Your task to perform on an android device: turn on data saver in the chrome app Image 0: 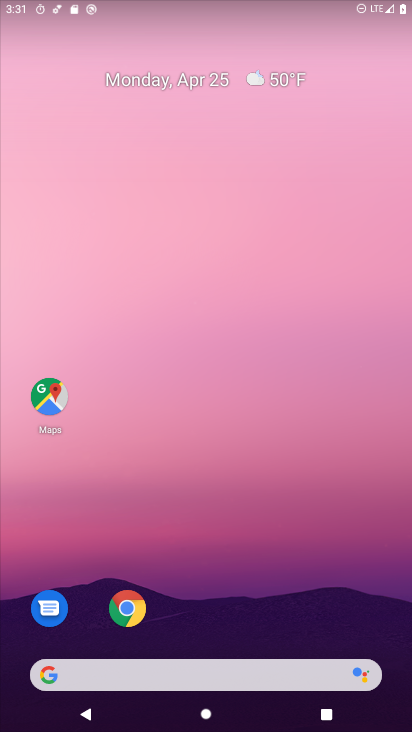
Step 0: click (118, 599)
Your task to perform on an android device: turn on data saver in the chrome app Image 1: 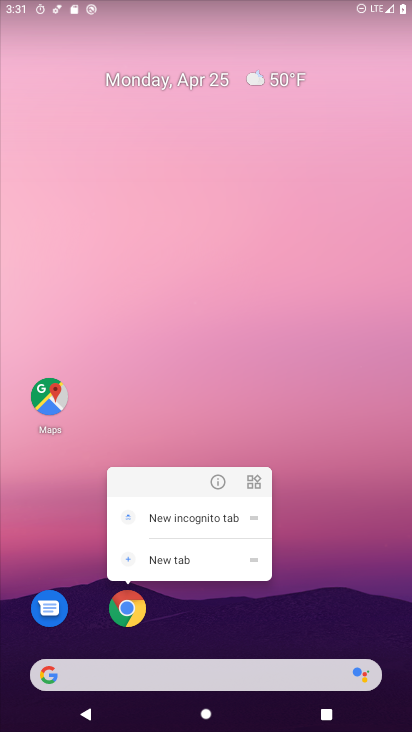
Step 1: click (128, 616)
Your task to perform on an android device: turn on data saver in the chrome app Image 2: 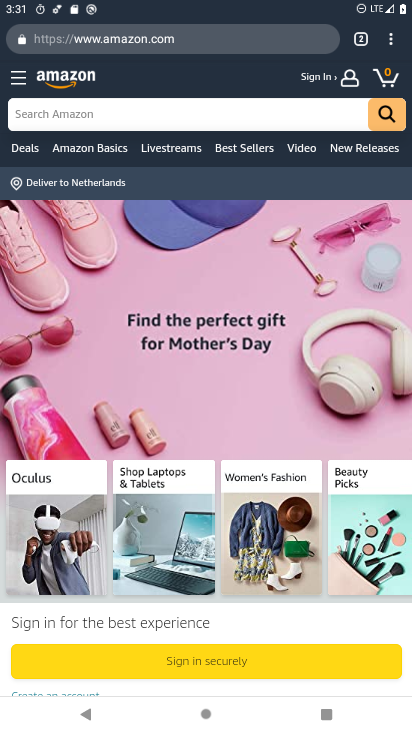
Step 2: drag from (388, 38) to (262, 508)
Your task to perform on an android device: turn on data saver in the chrome app Image 3: 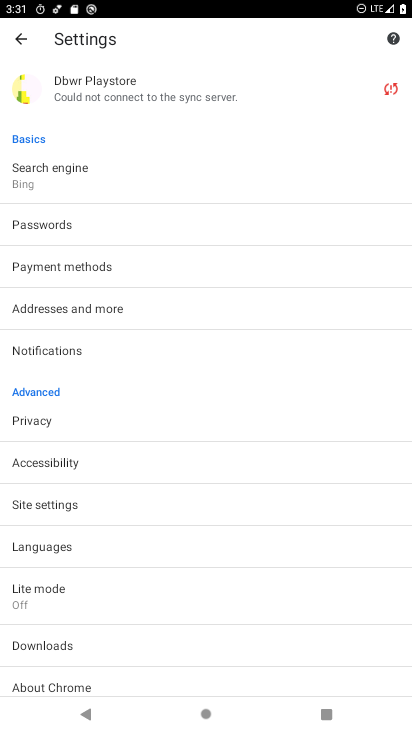
Step 3: drag from (128, 655) to (212, 405)
Your task to perform on an android device: turn on data saver in the chrome app Image 4: 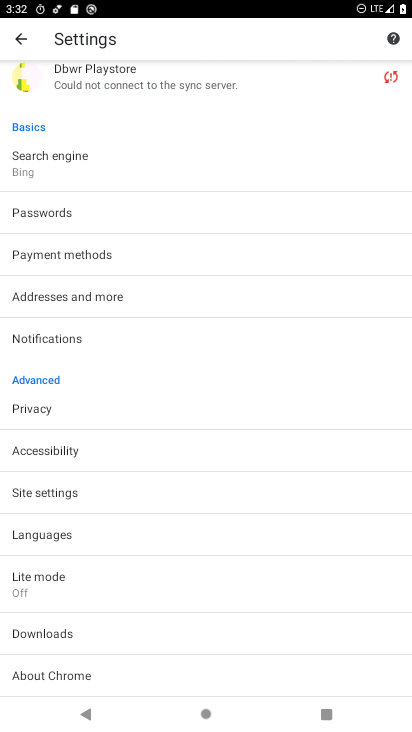
Step 4: click (134, 588)
Your task to perform on an android device: turn on data saver in the chrome app Image 5: 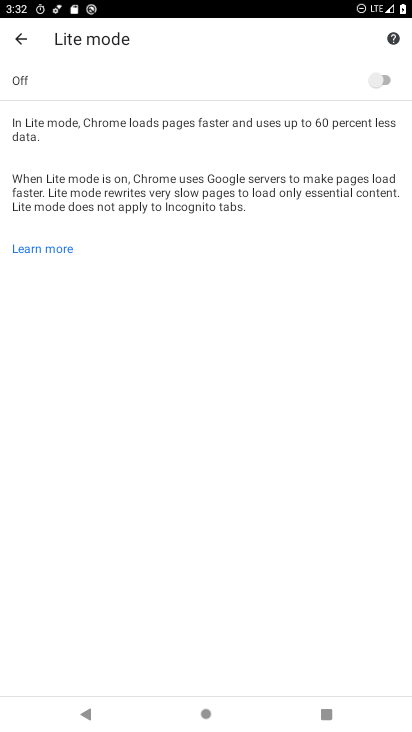
Step 5: click (387, 85)
Your task to perform on an android device: turn on data saver in the chrome app Image 6: 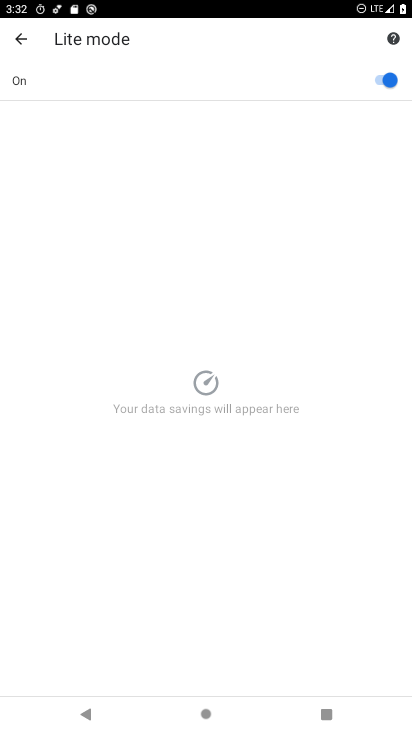
Step 6: task complete